Your task to perform on an android device: What is the news today? Image 0: 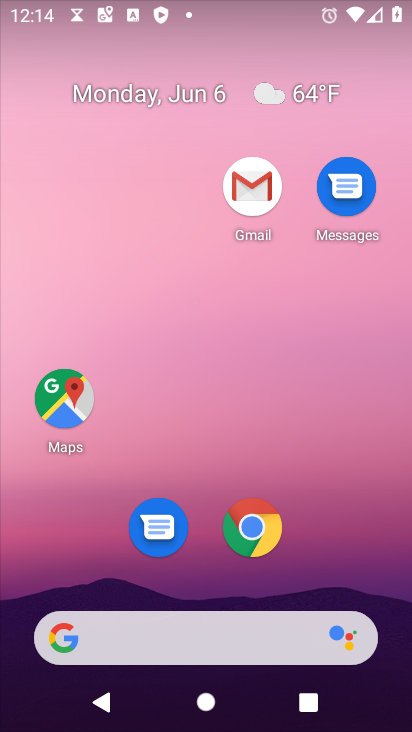
Step 0: click (168, 623)
Your task to perform on an android device: What is the news today? Image 1: 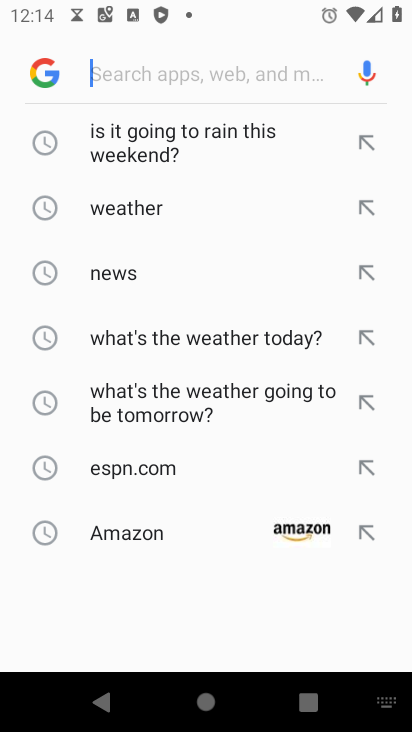
Step 1: type "news today"
Your task to perform on an android device: What is the news today? Image 2: 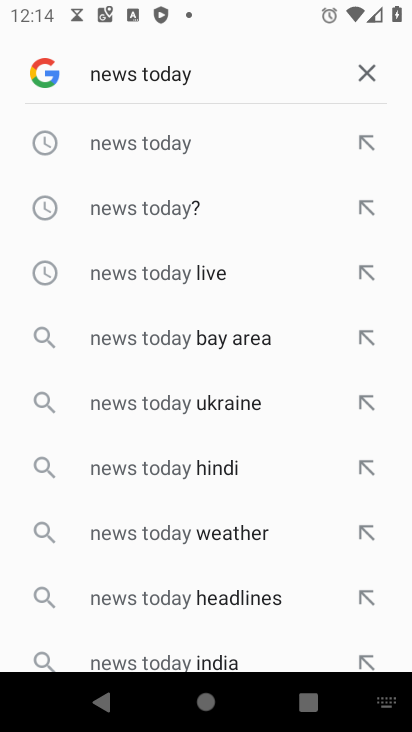
Step 2: click (150, 207)
Your task to perform on an android device: What is the news today? Image 3: 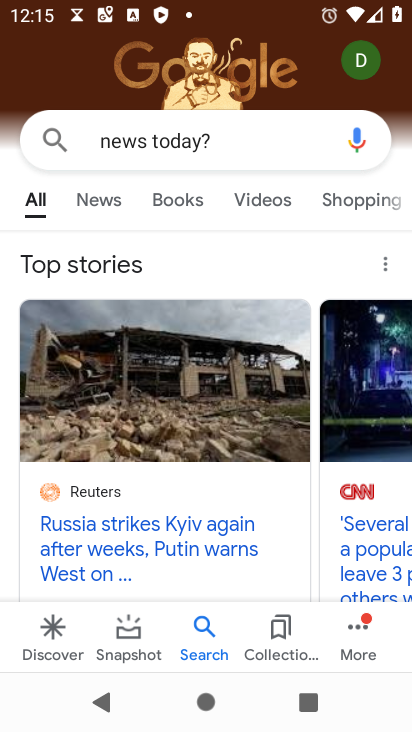
Step 3: click (114, 193)
Your task to perform on an android device: What is the news today? Image 4: 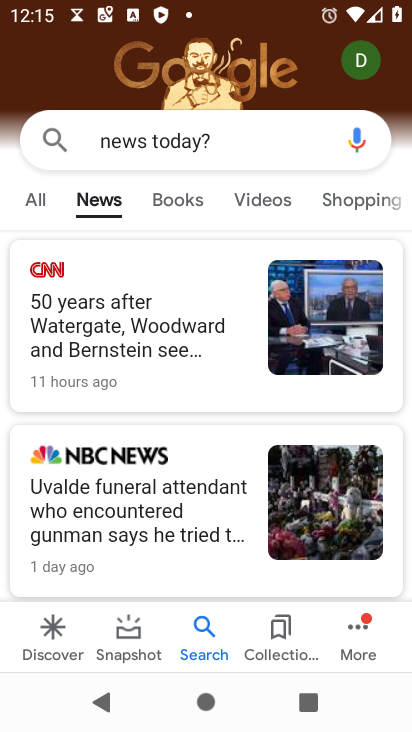
Step 4: task complete